Your task to perform on an android device: check battery use Image 0: 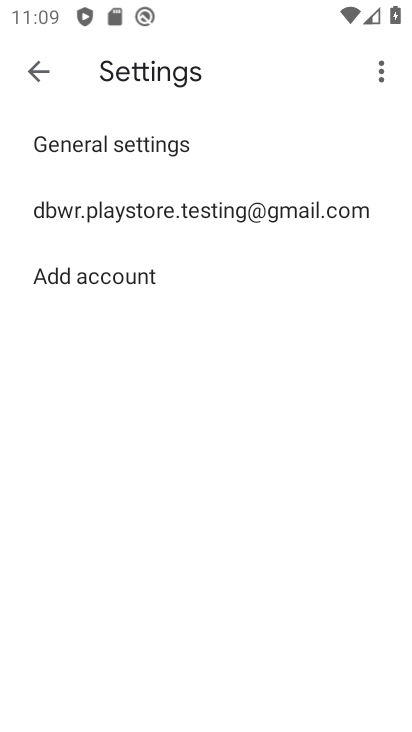
Step 0: press home button
Your task to perform on an android device: check battery use Image 1: 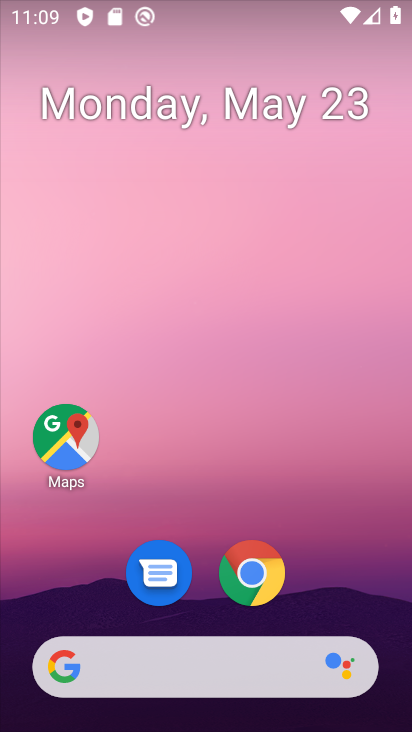
Step 1: drag from (366, 595) to (354, 174)
Your task to perform on an android device: check battery use Image 2: 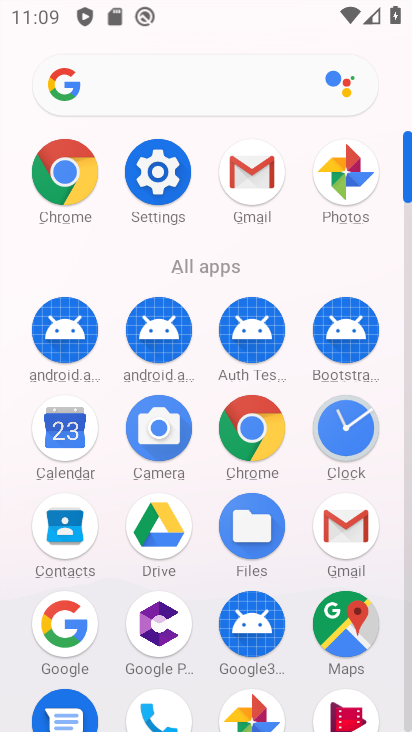
Step 2: drag from (384, 648) to (378, 385)
Your task to perform on an android device: check battery use Image 3: 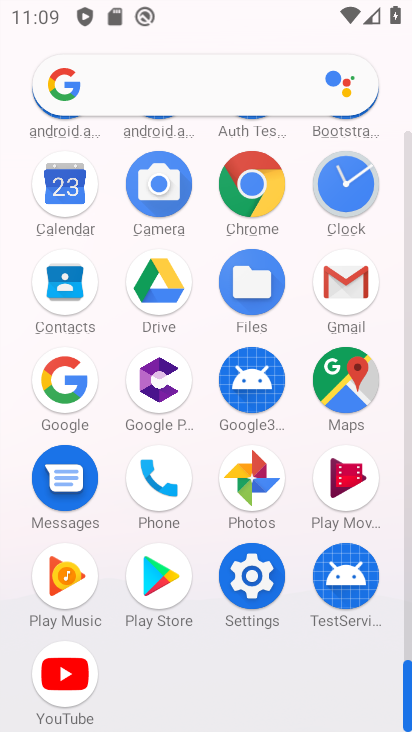
Step 3: click (250, 595)
Your task to perform on an android device: check battery use Image 4: 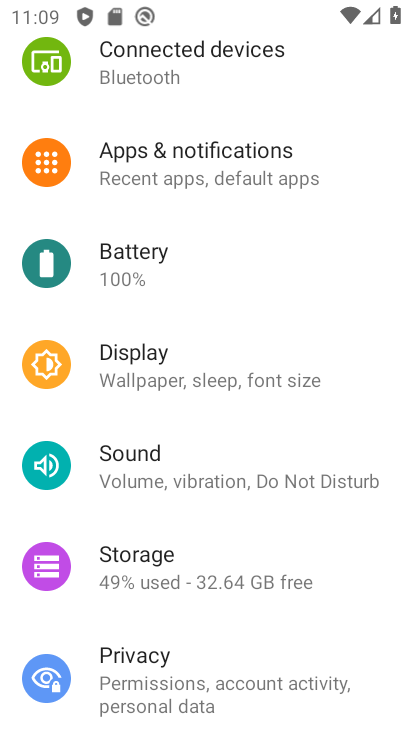
Step 4: drag from (332, 651) to (323, 505)
Your task to perform on an android device: check battery use Image 5: 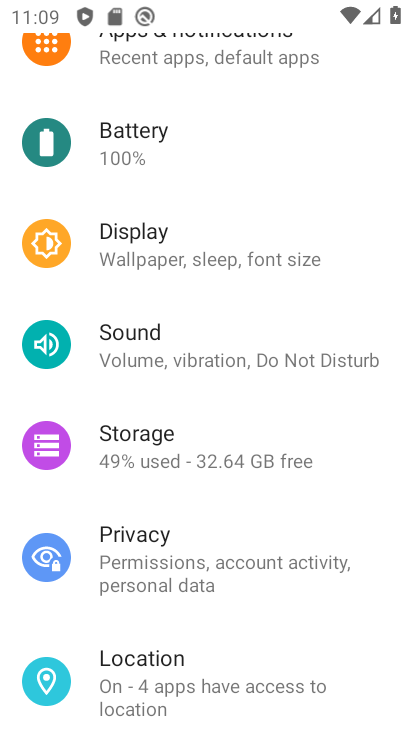
Step 5: drag from (335, 658) to (349, 519)
Your task to perform on an android device: check battery use Image 6: 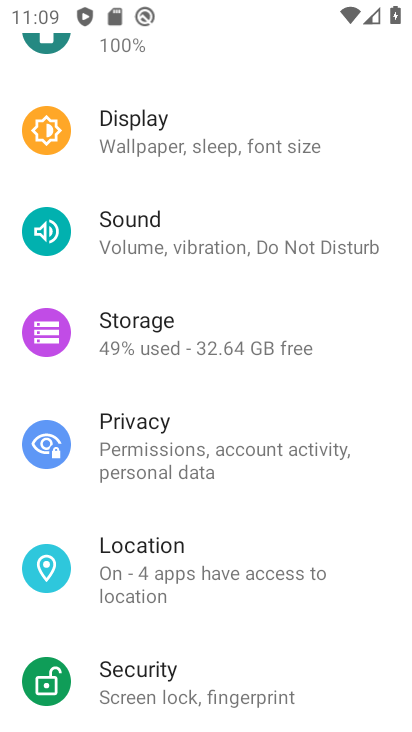
Step 6: drag from (365, 684) to (369, 517)
Your task to perform on an android device: check battery use Image 7: 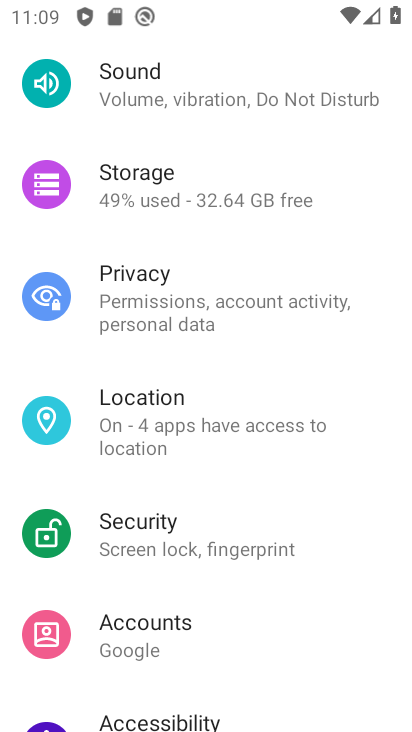
Step 7: drag from (363, 675) to (351, 503)
Your task to perform on an android device: check battery use Image 8: 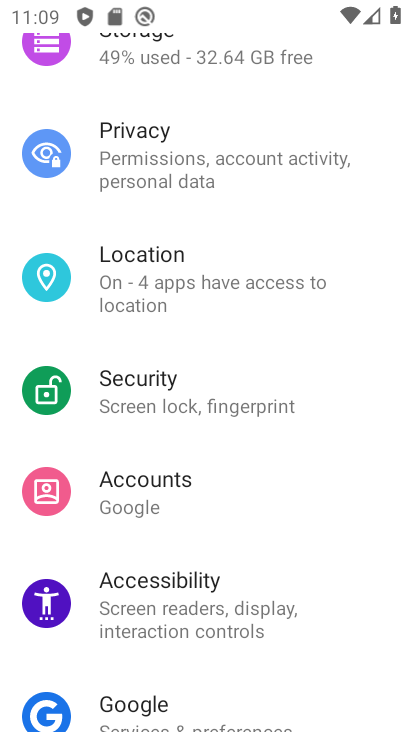
Step 8: drag from (360, 663) to (354, 477)
Your task to perform on an android device: check battery use Image 9: 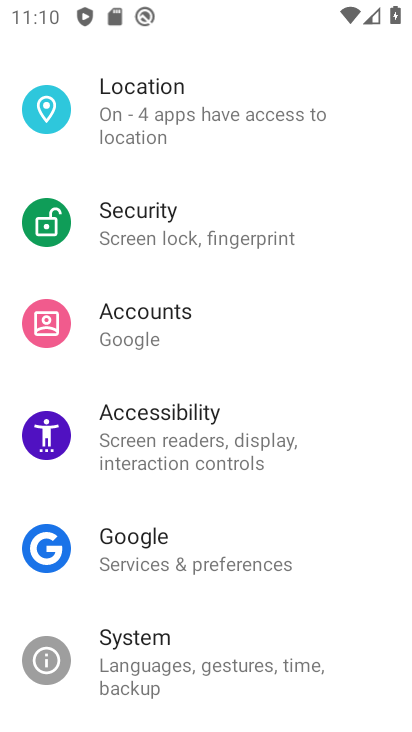
Step 9: drag from (368, 660) to (361, 501)
Your task to perform on an android device: check battery use Image 10: 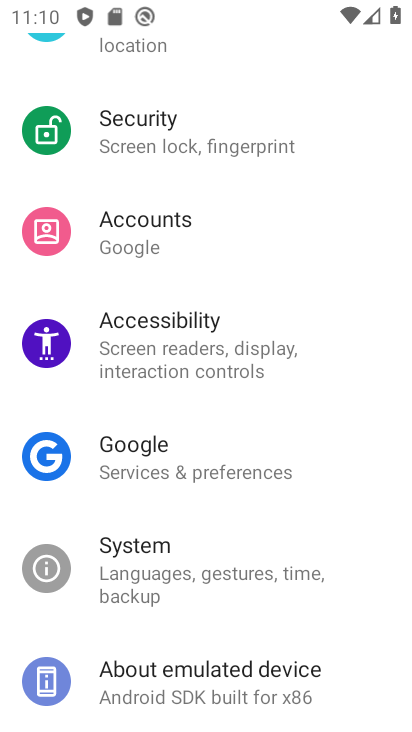
Step 10: drag from (363, 398) to (347, 505)
Your task to perform on an android device: check battery use Image 11: 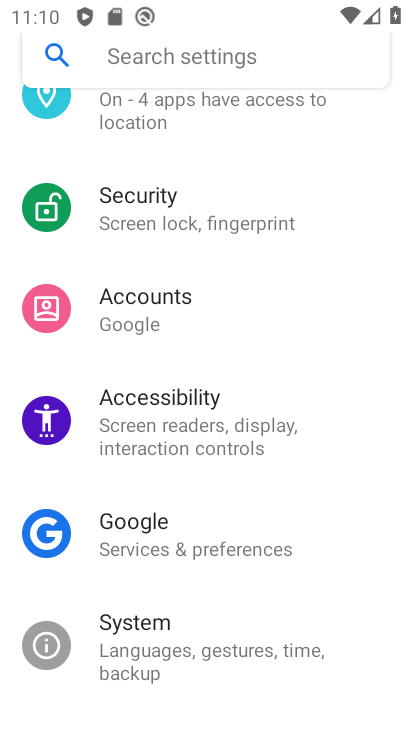
Step 11: drag from (341, 402) to (360, 515)
Your task to perform on an android device: check battery use Image 12: 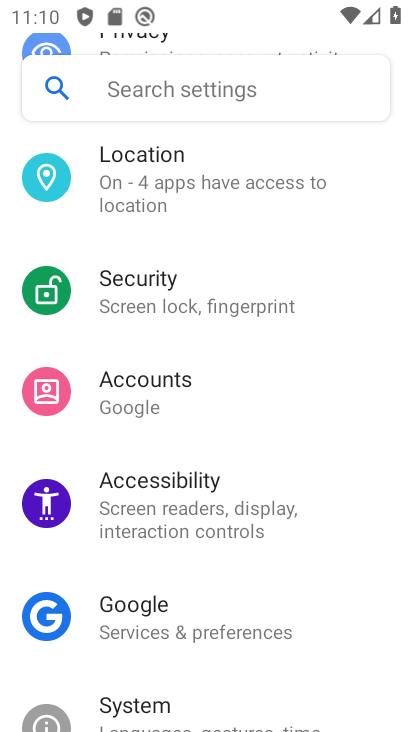
Step 12: drag from (379, 356) to (392, 466)
Your task to perform on an android device: check battery use Image 13: 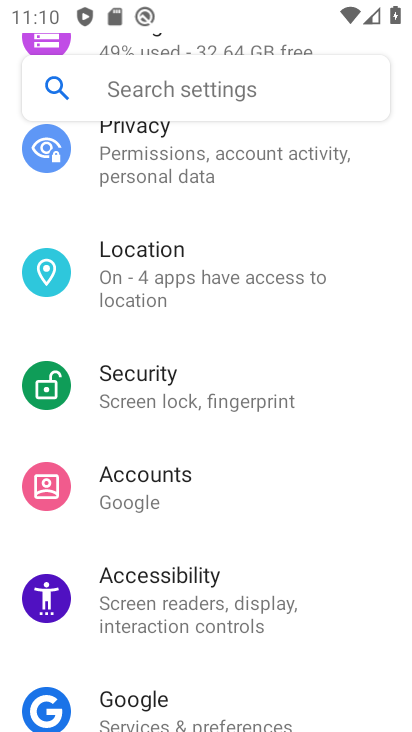
Step 13: drag from (385, 324) to (389, 445)
Your task to perform on an android device: check battery use Image 14: 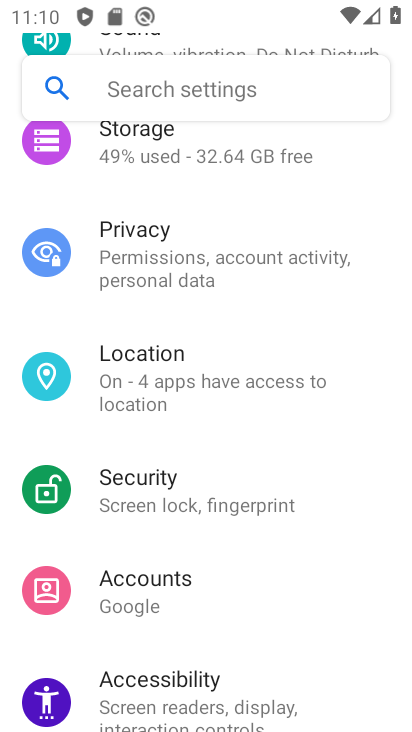
Step 14: drag from (356, 323) to (355, 407)
Your task to perform on an android device: check battery use Image 15: 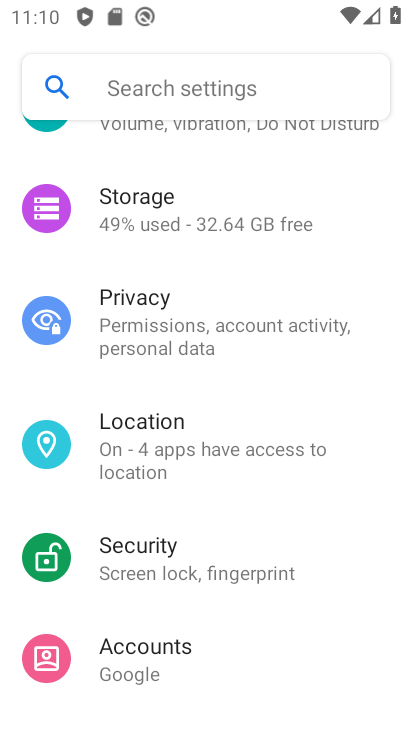
Step 15: drag from (365, 286) to (373, 425)
Your task to perform on an android device: check battery use Image 16: 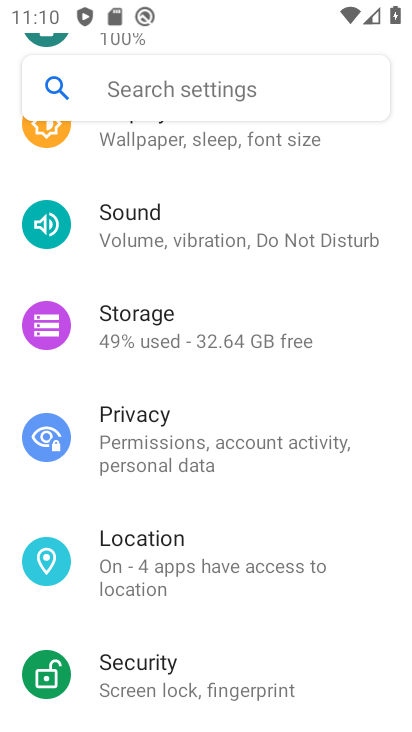
Step 16: drag from (363, 306) to (364, 419)
Your task to perform on an android device: check battery use Image 17: 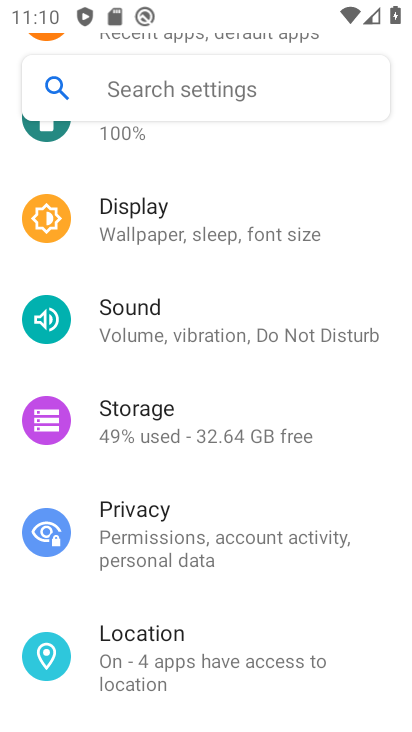
Step 17: drag from (369, 306) to (370, 423)
Your task to perform on an android device: check battery use Image 18: 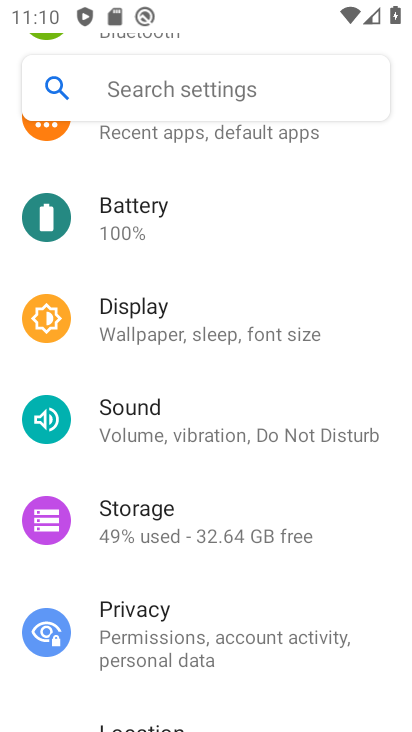
Step 18: drag from (370, 287) to (379, 399)
Your task to perform on an android device: check battery use Image 19: 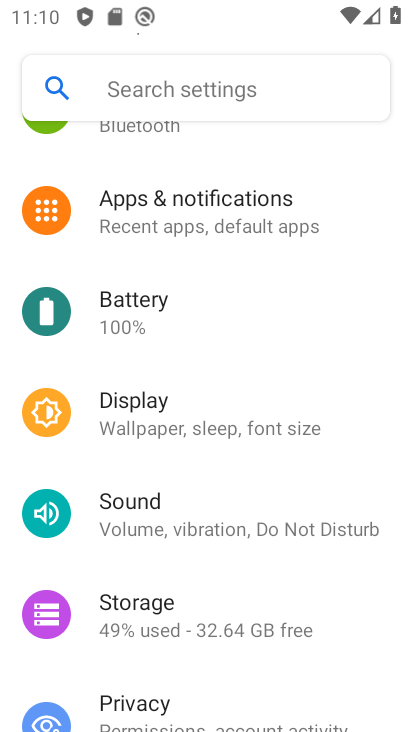
Step 19: drag from (379, 275) to (377, 400)
Your task to perform on an android device: check battery use Image 20: 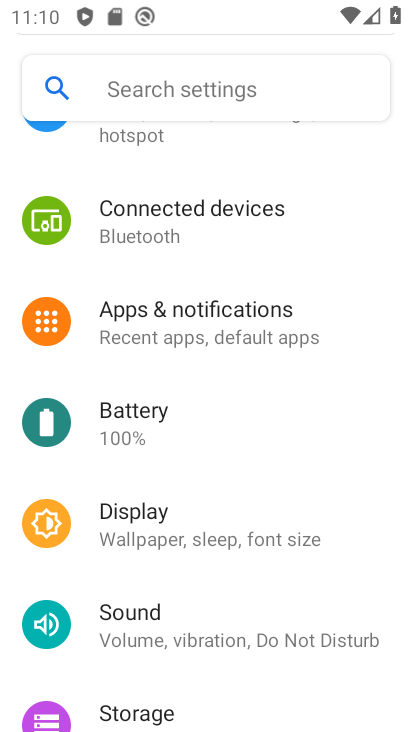
Step 20: click (204, 434)
Your task to perform on an android device: check battery use Image 21: 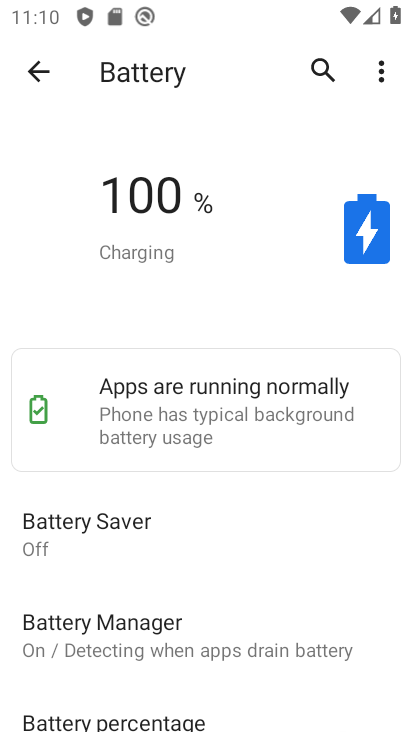
Step 21: click (385, 75)
Your task to perform on an android device: check battery use Image 22: 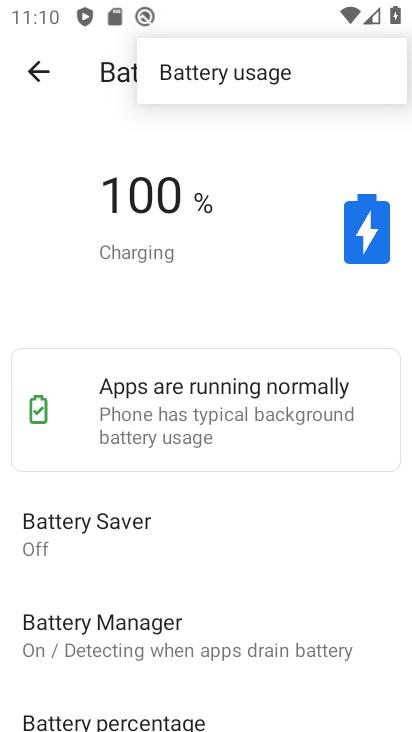
Step 22: click (278, 78)
Your task to perform on an android device: check battery use Image 23: 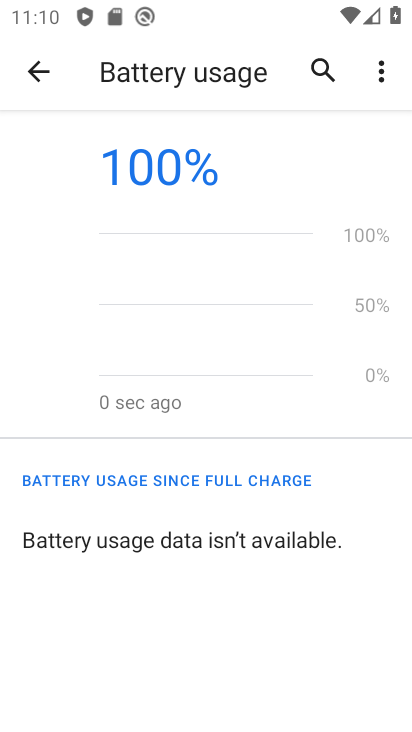
Step 23: task complete